Your task to perform on an android device: Open my contact list Image 0: 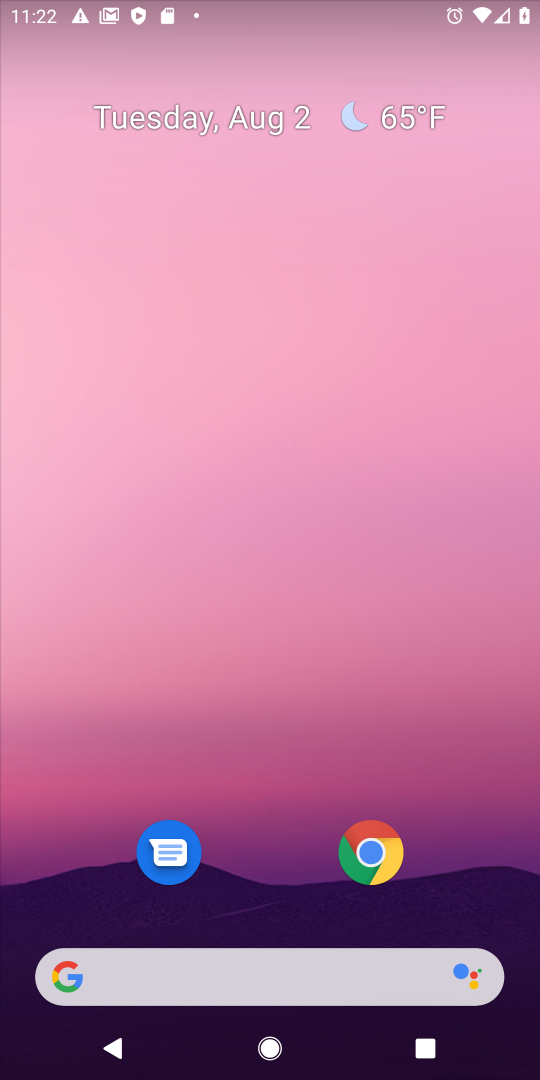
Step 0: drag from (81, 1042) to (271, 69)
Your task to perform on an android device: Open my contact list Image 1: 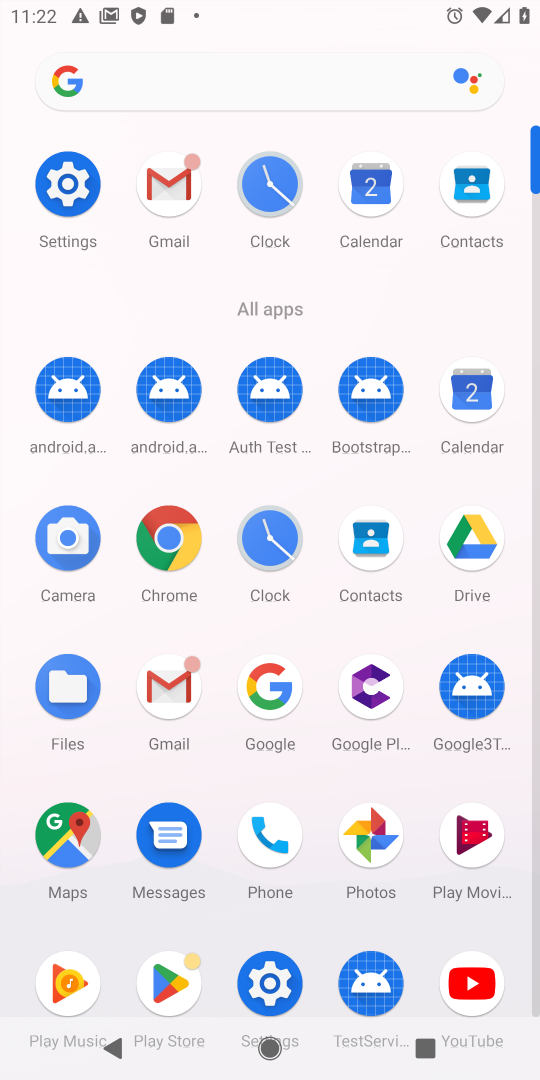
Step 1: click (377, 533)
Your task to perform on an android device: Open my contact list Image 2: 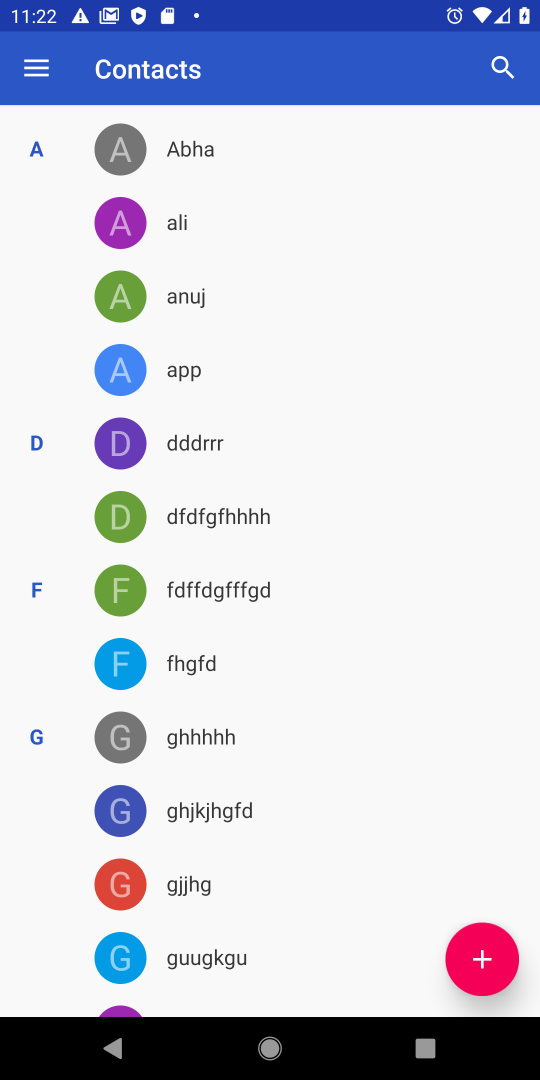
Step 2: task complete